Your task to perform on an android device: Open the map Image 0: 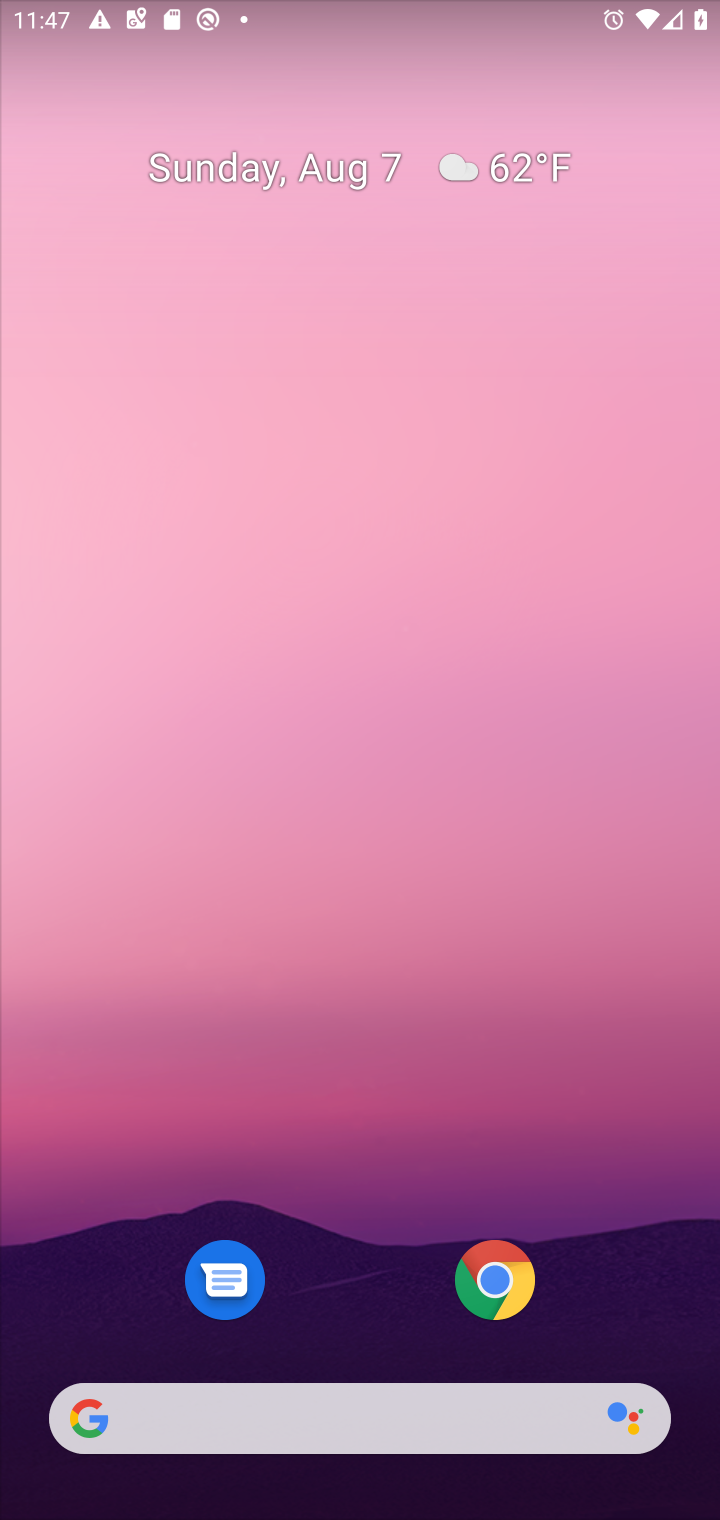
Step 0: drag from (348, 1363) to (446, 190)
Your task to perform on an android device: Open the map Image 1: 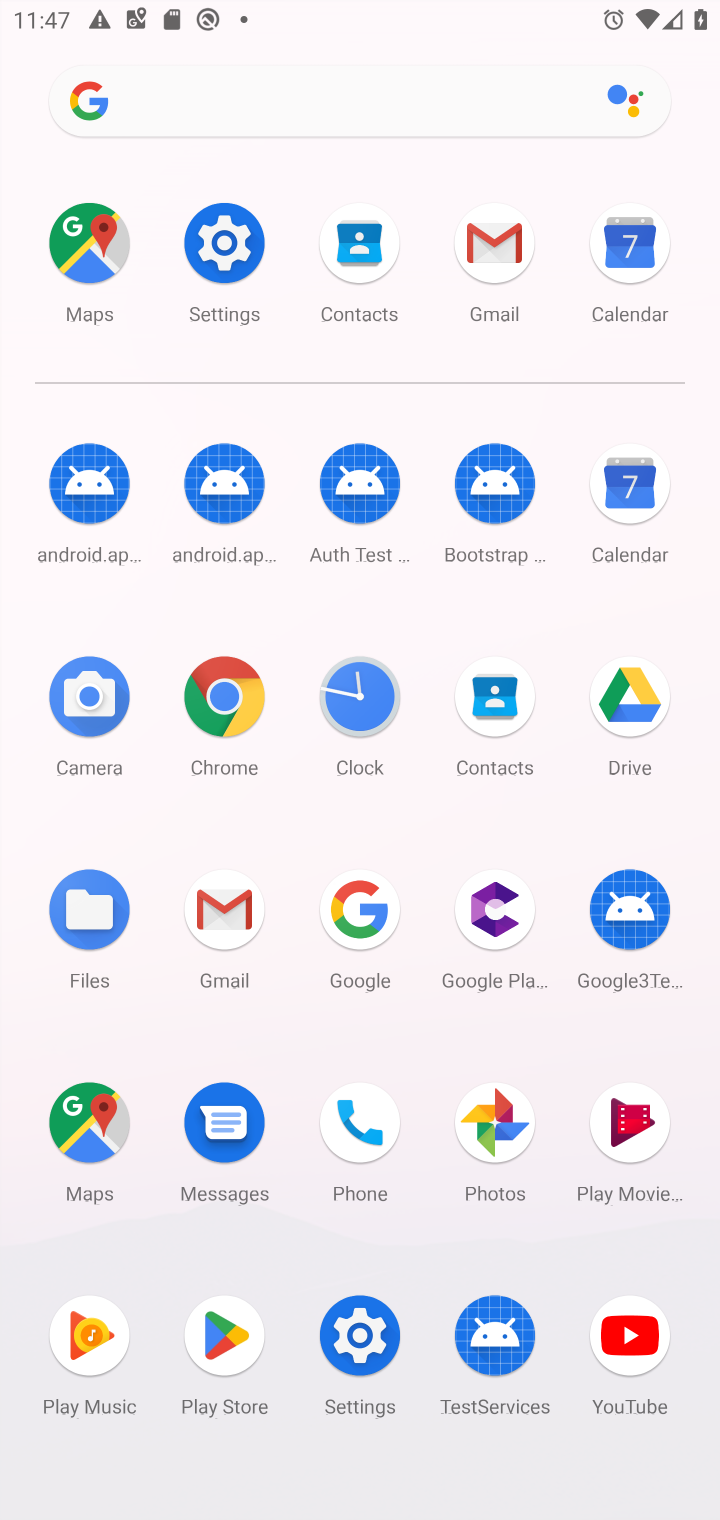
Step 1: click (78, 237)
Your task to perform on an android device: Open the map Image 2: 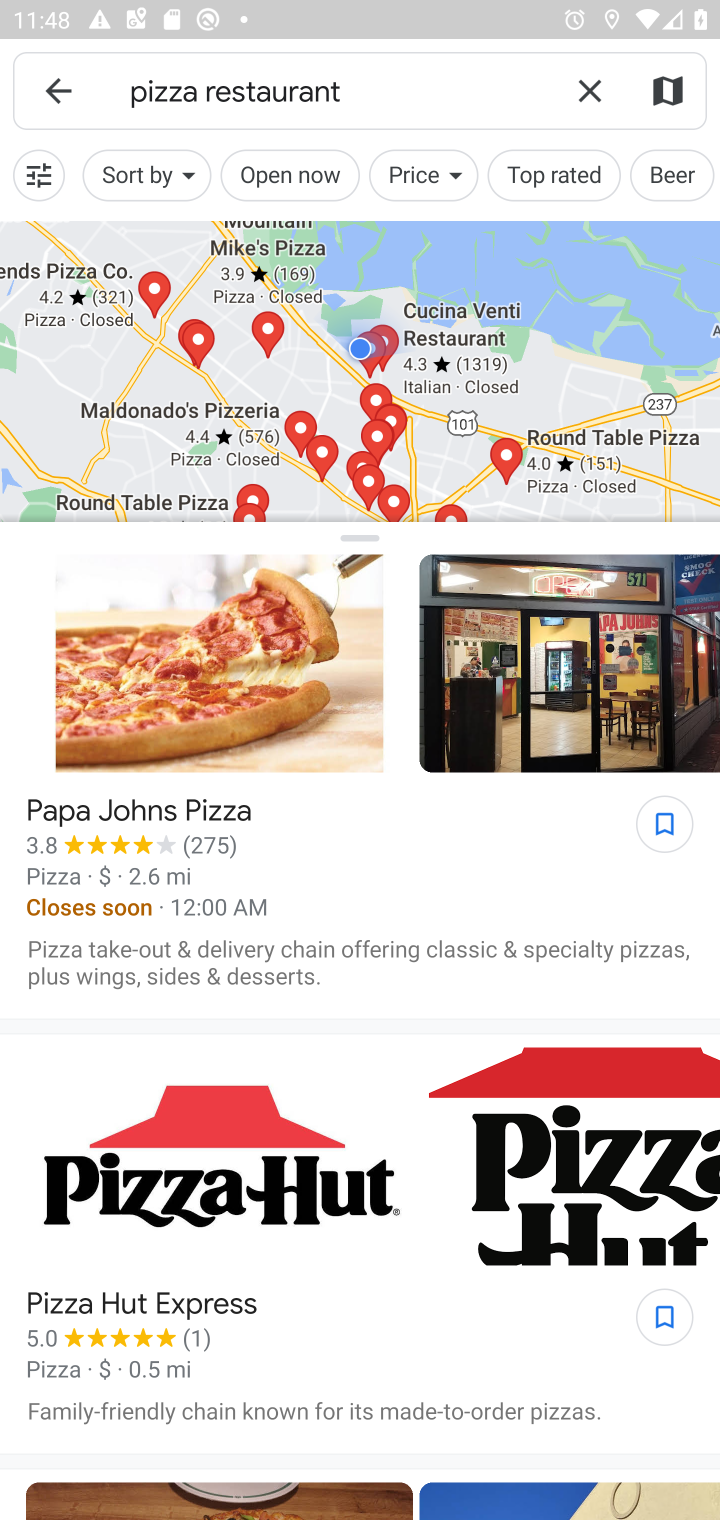
Step 2: task complete